Your task to perform on an android device: Open internet settings Image 0: 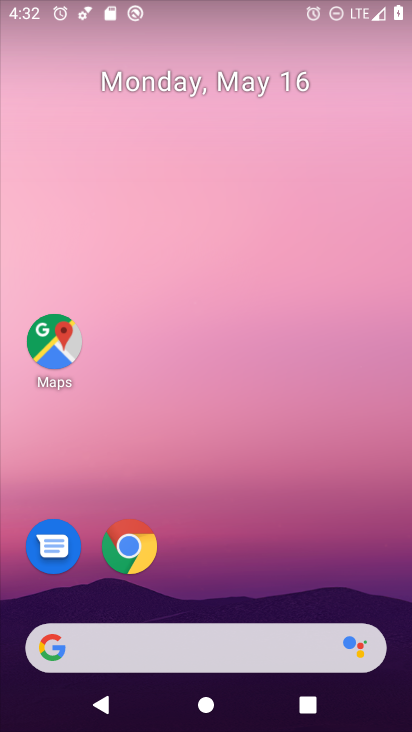
Step 0: drag from (343, 584) to (346, 168)
Your task to perform on an android device: Open internet settings Image 1: 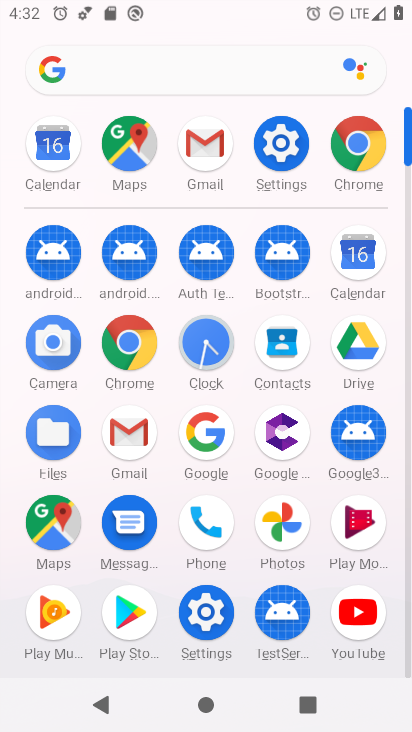
Step 1: click (213, 635)
Your task to perform on an android device: Open internet settings Image 2: 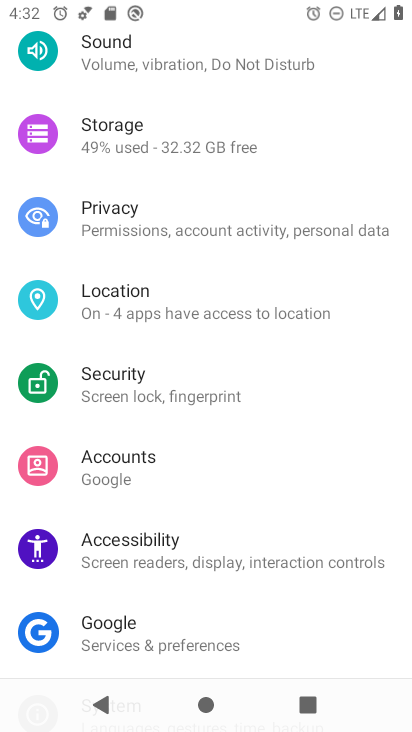
Step 2: drag from (347, 639) to (352, 492)
Your task to perform on an android device: Open internet settings Image 3: 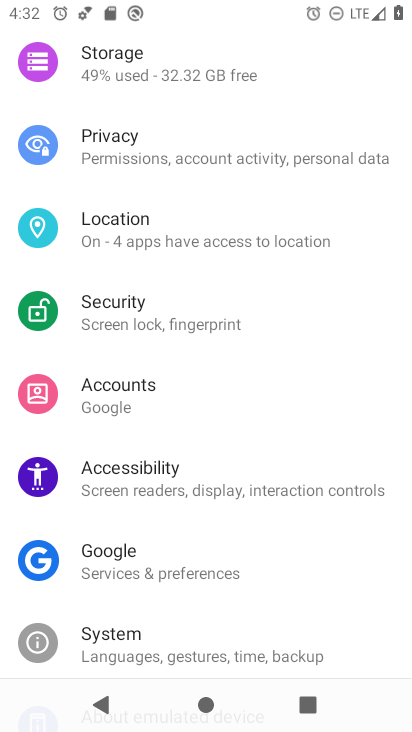
Step 3: drag from (355, 585) to (348, 435)
Your task to perform on an android device: Open internet settings Image 4: 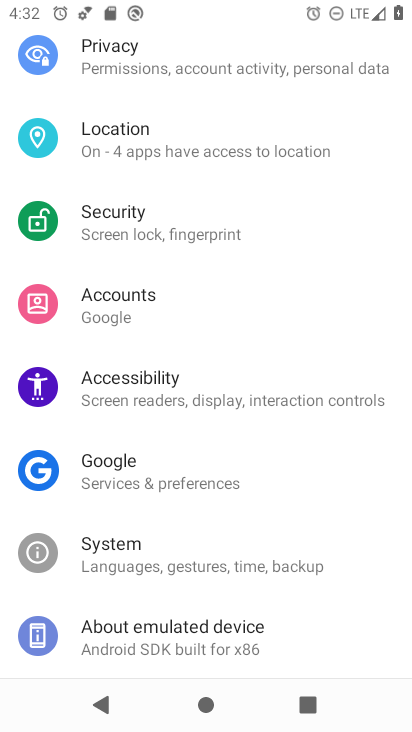
Step 4: drag from (352, 436) to (346, 552)
Your task to perform on an android device: Open internet settings Image 5: 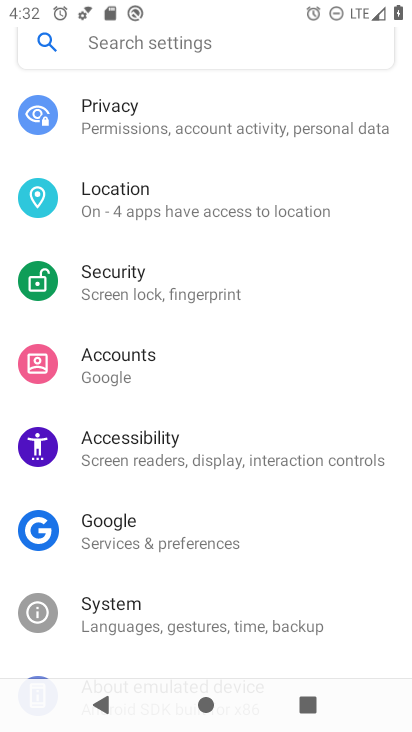
Step 5: drag from (338, 340) to (330, 493)
Your task to perform on an android device: Open internet settings Image 6: 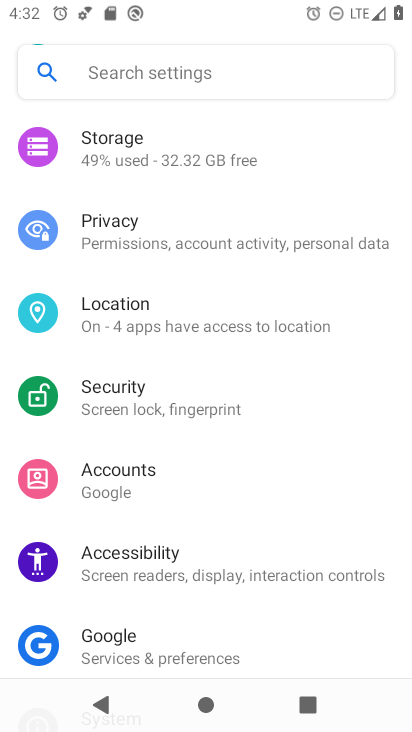
Step 6: drag from (342, 369) to (334, 500)
Your task to perform on an android device: Open internet settings Image 7: 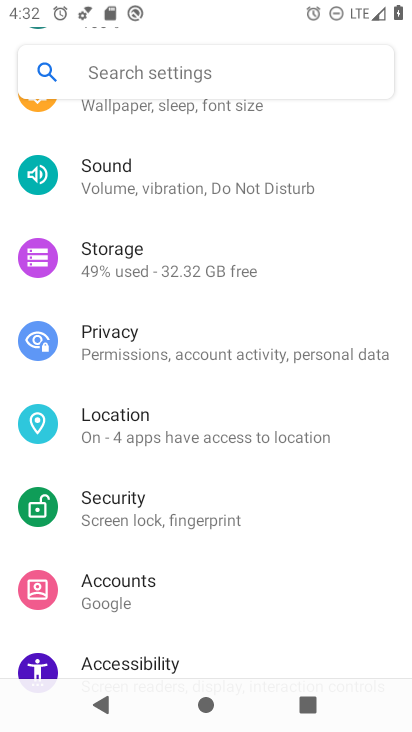
Step 7: drag from (352, 386) to (351, 512)
Your task to perform on an android device: Open internet settings Image 8: 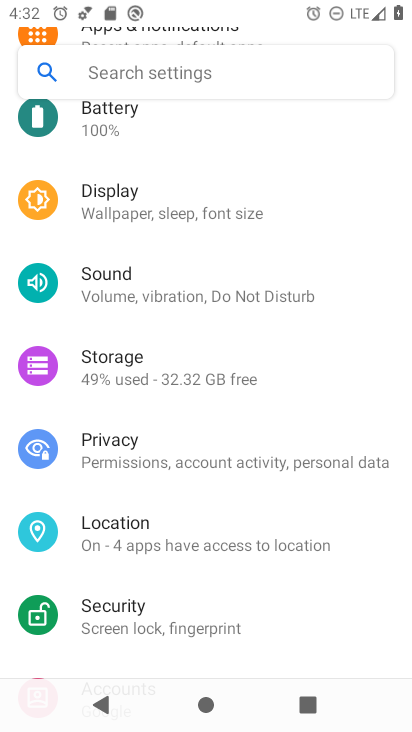
Step 8: drag from (339, 334) to (337, 461)
Your task to perform on an android device: Open internet settings Image 9: 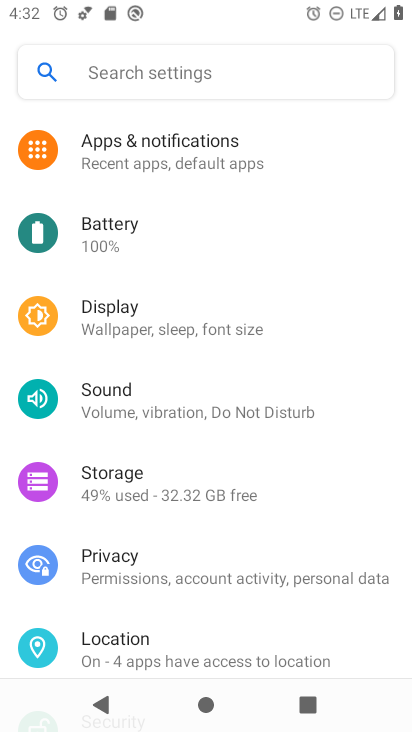
Step 9: drag from (336, 339) to (336, 468)
Your task to perform on an android device: Open internet settings Image 10: 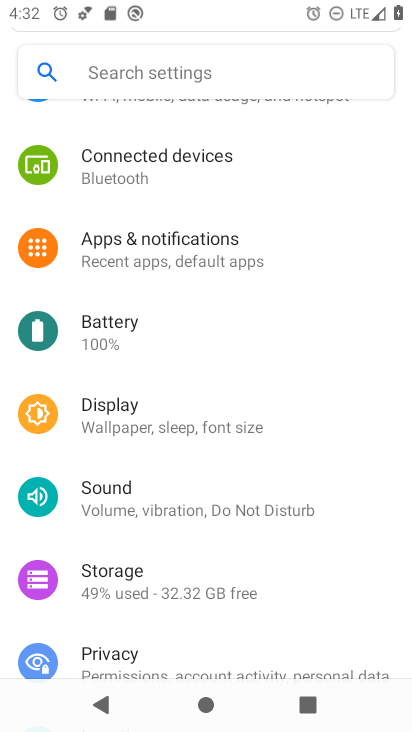
Step 10: drag from (335, 334) to (338, 440)
Your task to perform on an android device: Open internet settings Image 11: 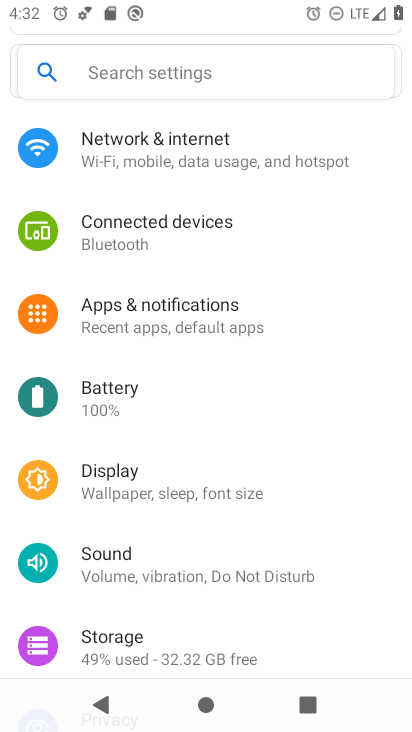
Step 11: drag from (347, 312) to (345, 446)
Your task to perform on an android device: Open internet settings Image 12: 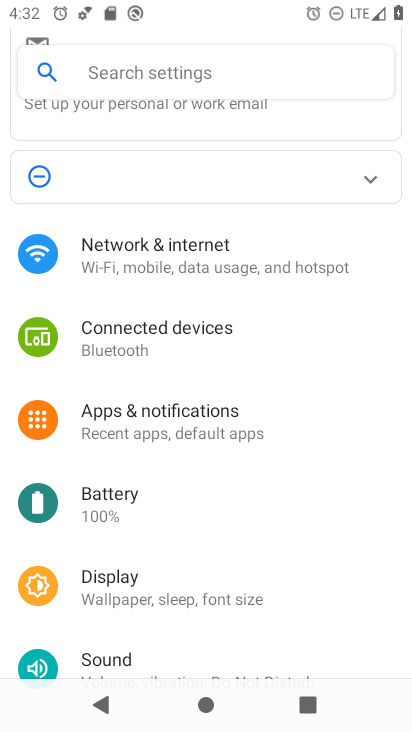
Step 12: click (293, 270)
Your task to perform on an android device: Open internet settings Image 13: 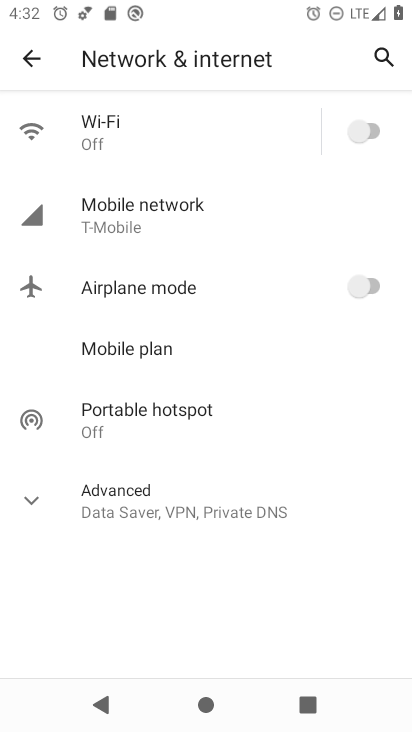
Step 13: task complete